Your task to perform on an android device: star an email in the gmail app Image 0: 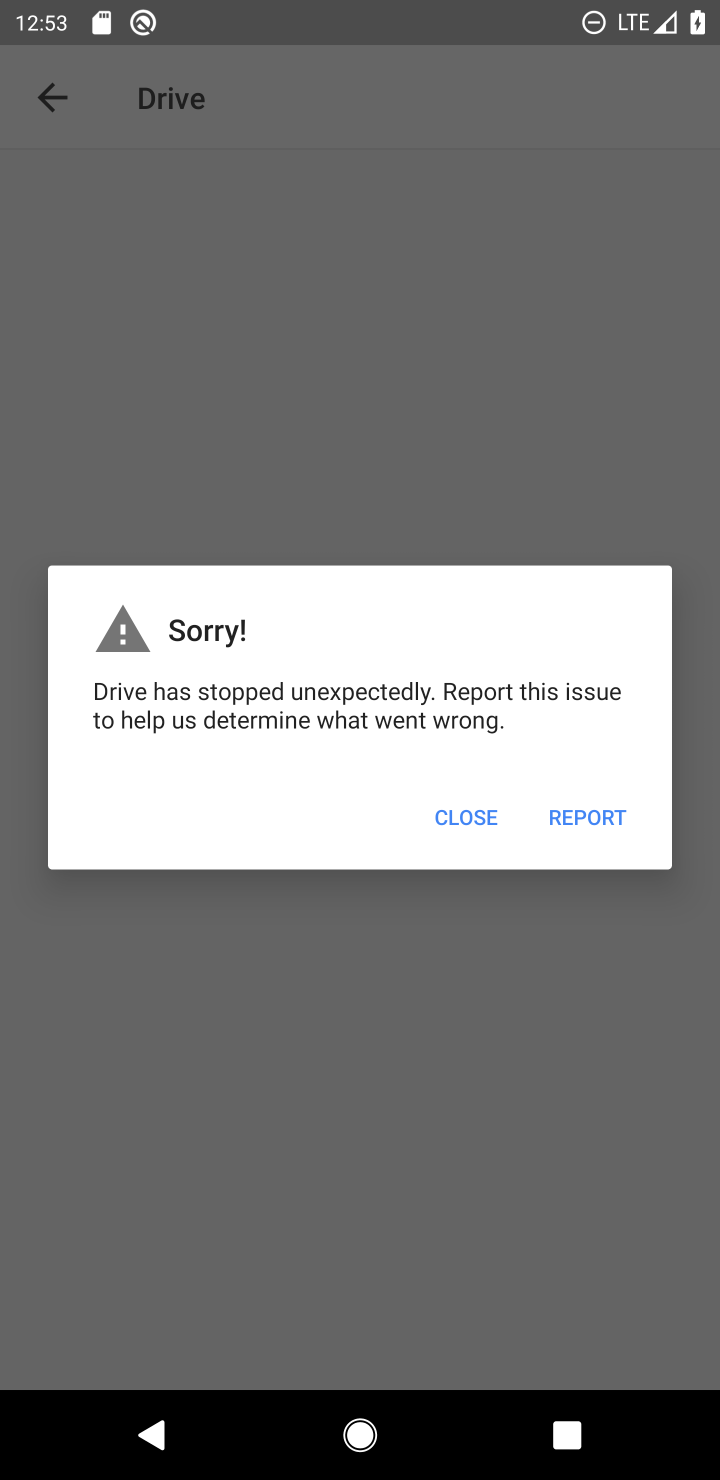
Step 0: press home button
Your task to perform on an android device: star an email in the gmail app Image 1: 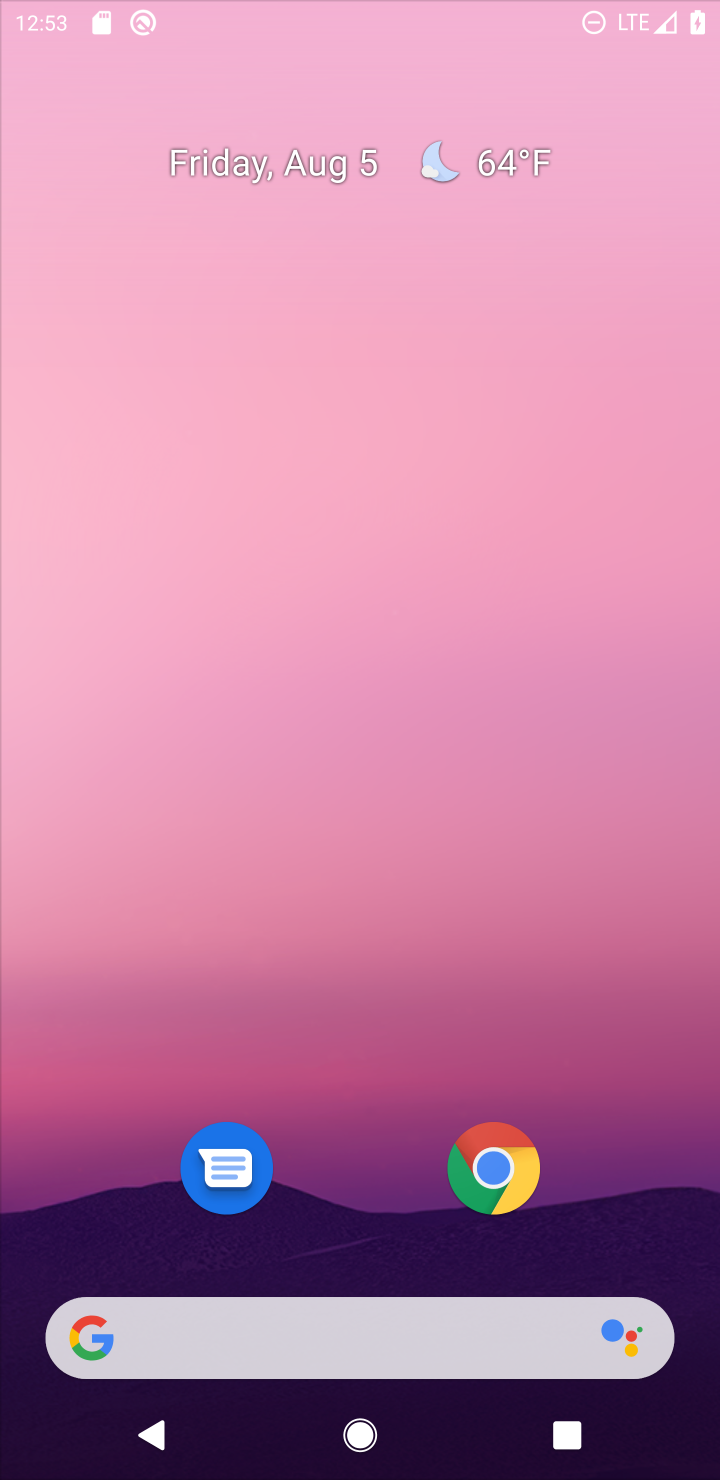
Step 1: drag from (593, 800) to (348, 54)
Your task to perform on an android device: star an email in the gmail app Image 2: 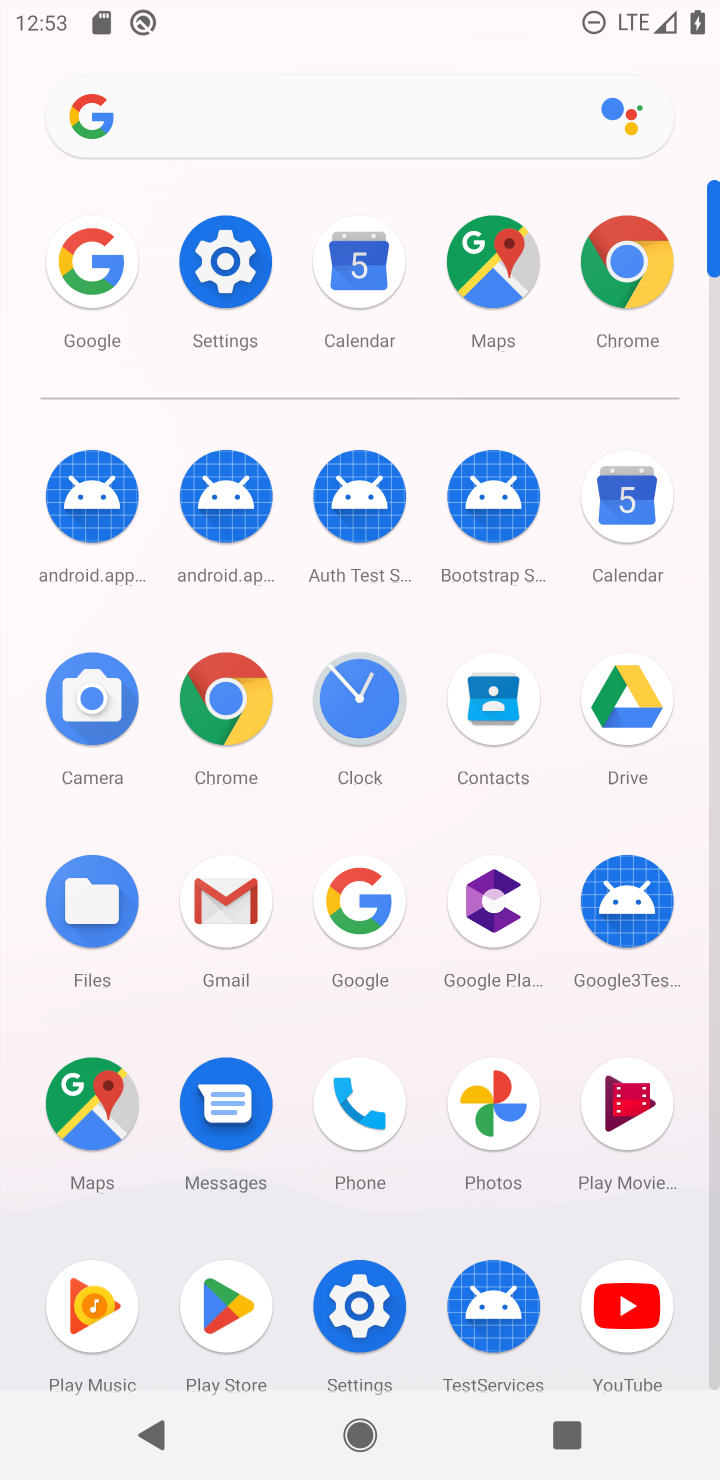
Step 2: click (241, 910)
Your task to perform on an android device: star an email in the gmail app Image 3: 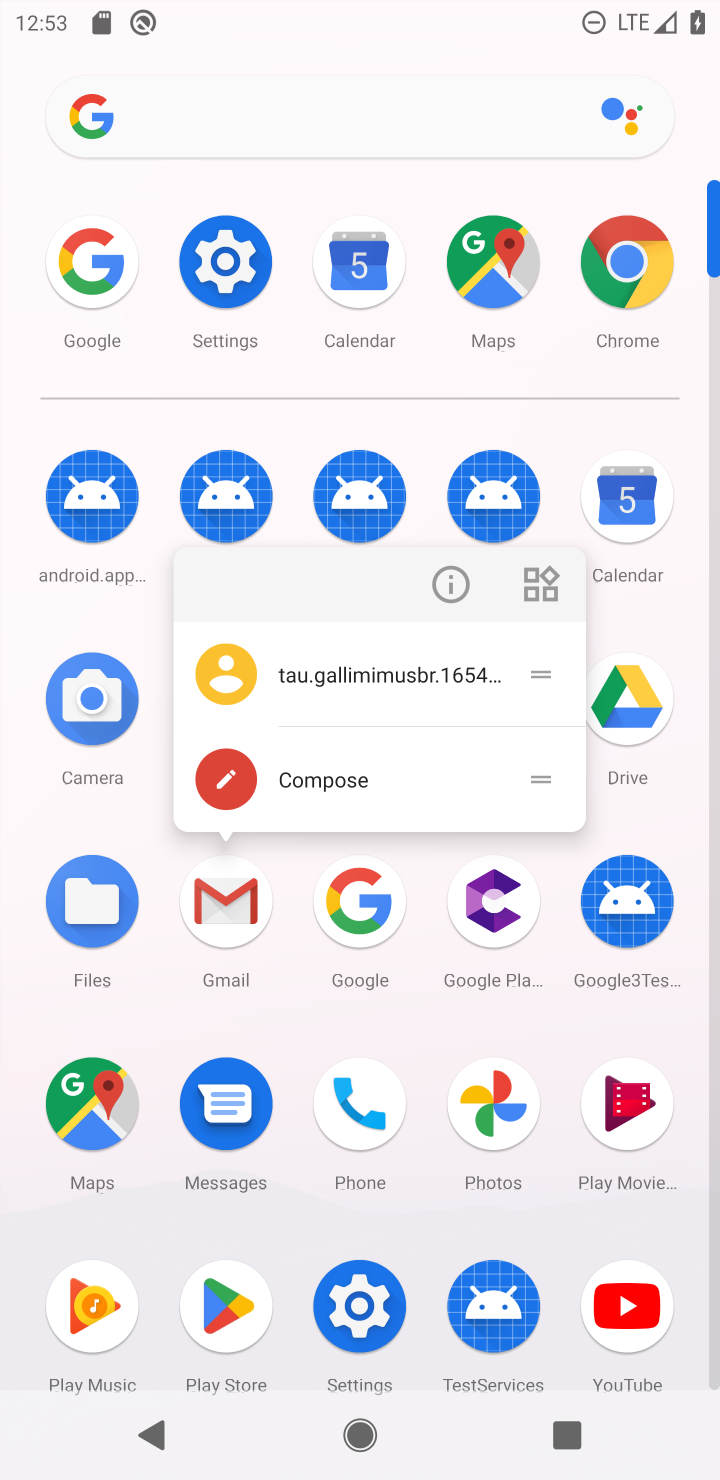
Step 3: click (241, 910)
Your task to perform on an android device: star an email in the gmail app Image 4: 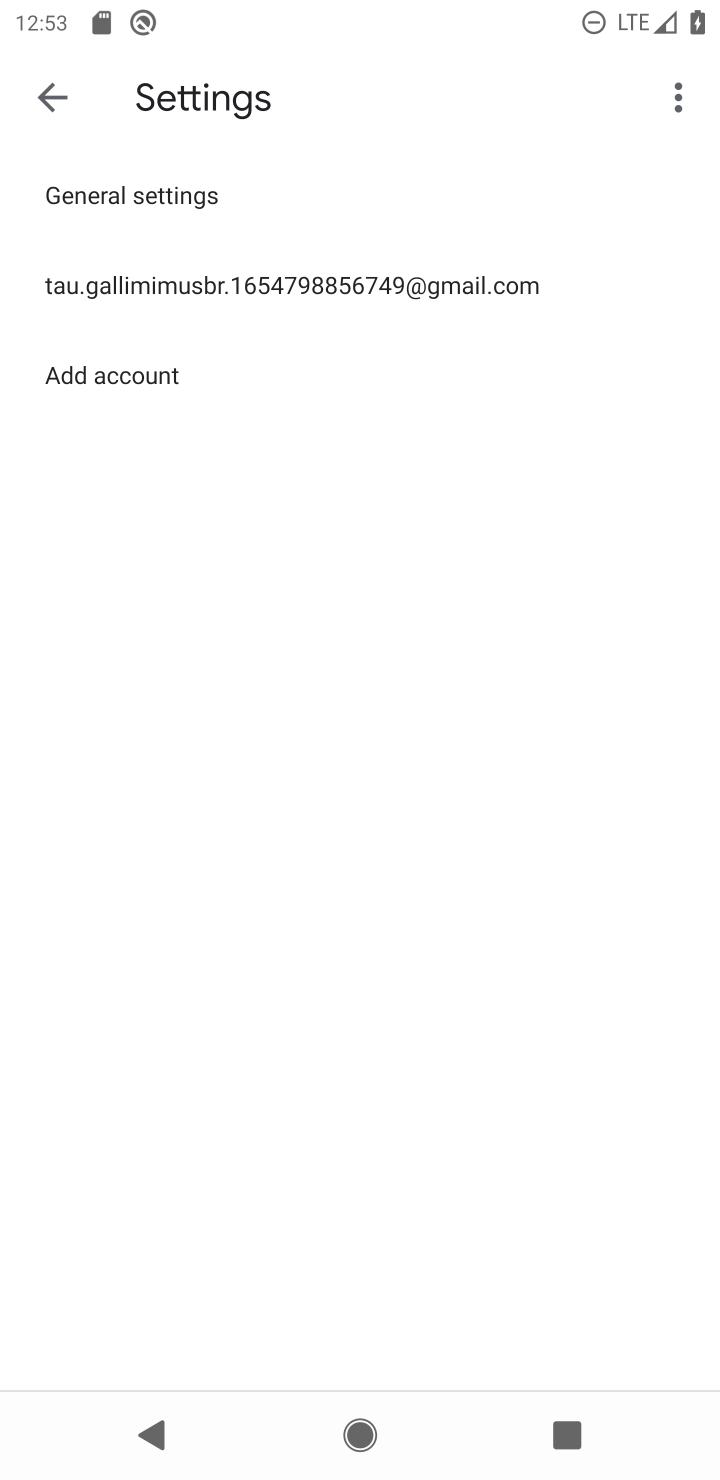
Step 4: press back button
Your task to perform on an android device: star an email in the gmail app Image 5: 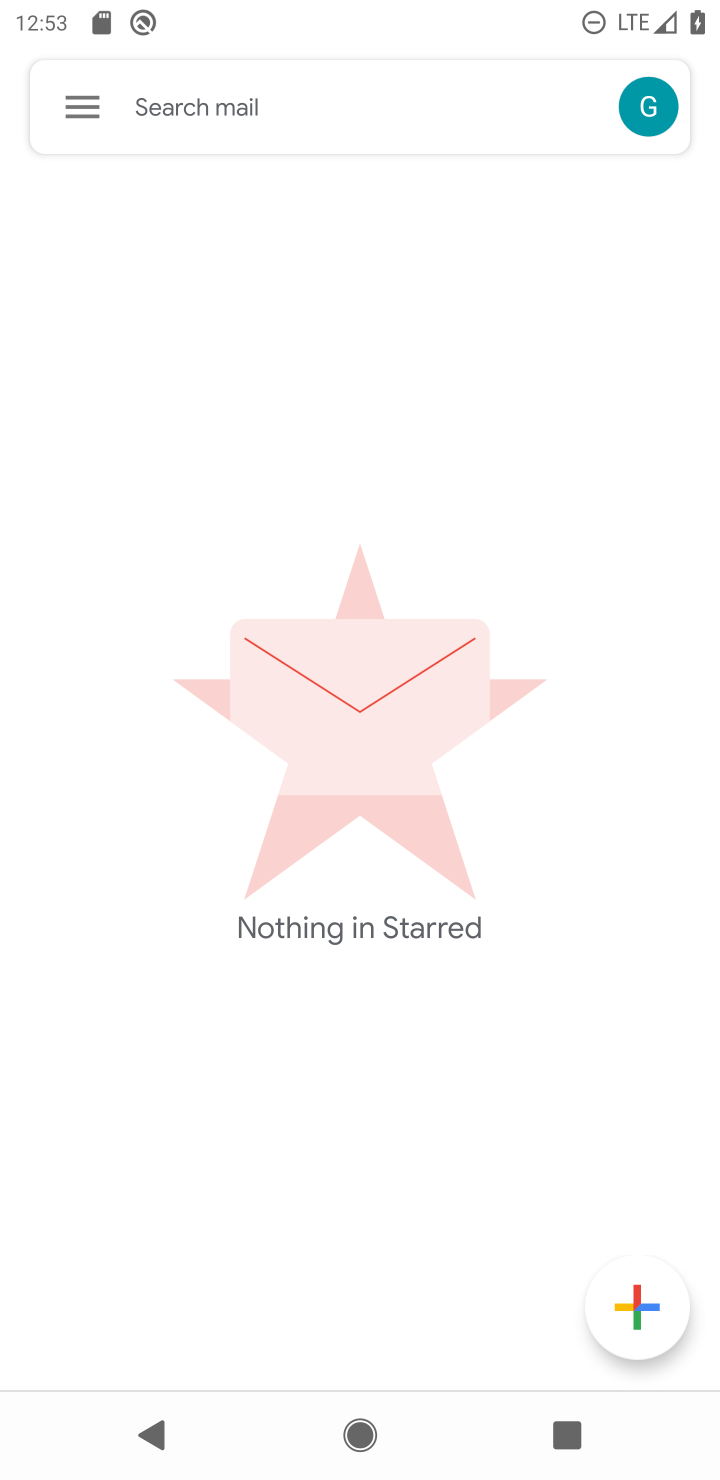
Step 5: click (54, 113)
Your task to perform on an android device: star an email in the gmail app Image 6: 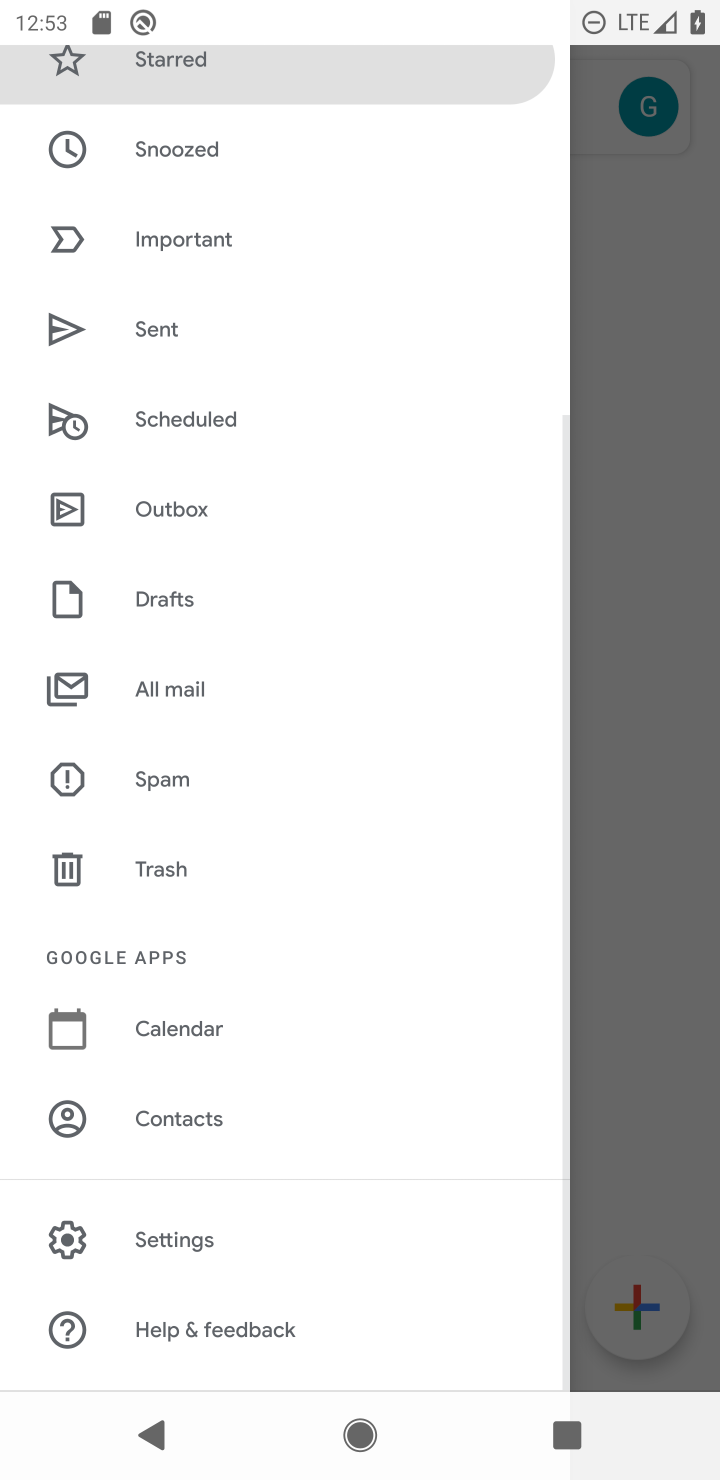
Step 6: drag from (203, 174) to (214, 1445)
Your task to perform on an android device: star an email in the gmail app Image 7: 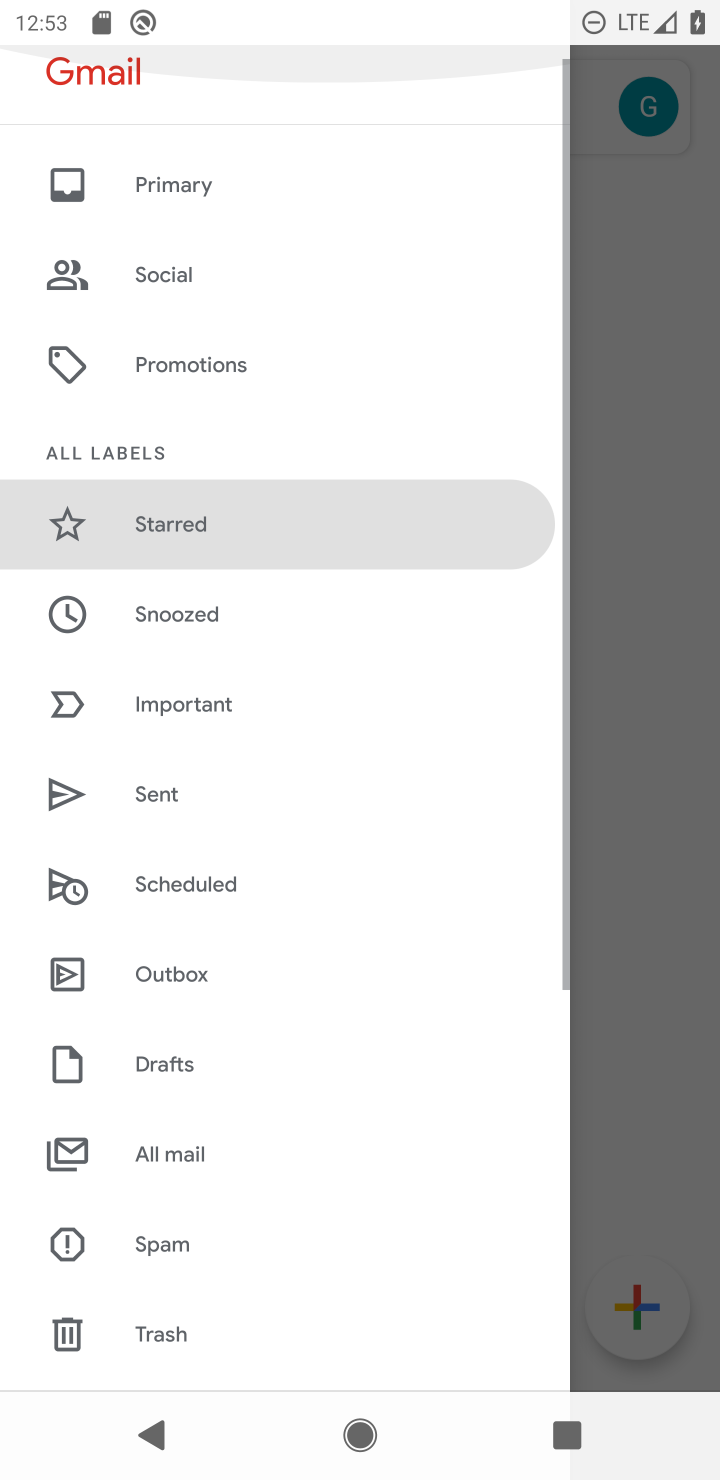
Step 7: click (182, 218)
Your task to perform on an android device: star an email in the gmail app Image 8: 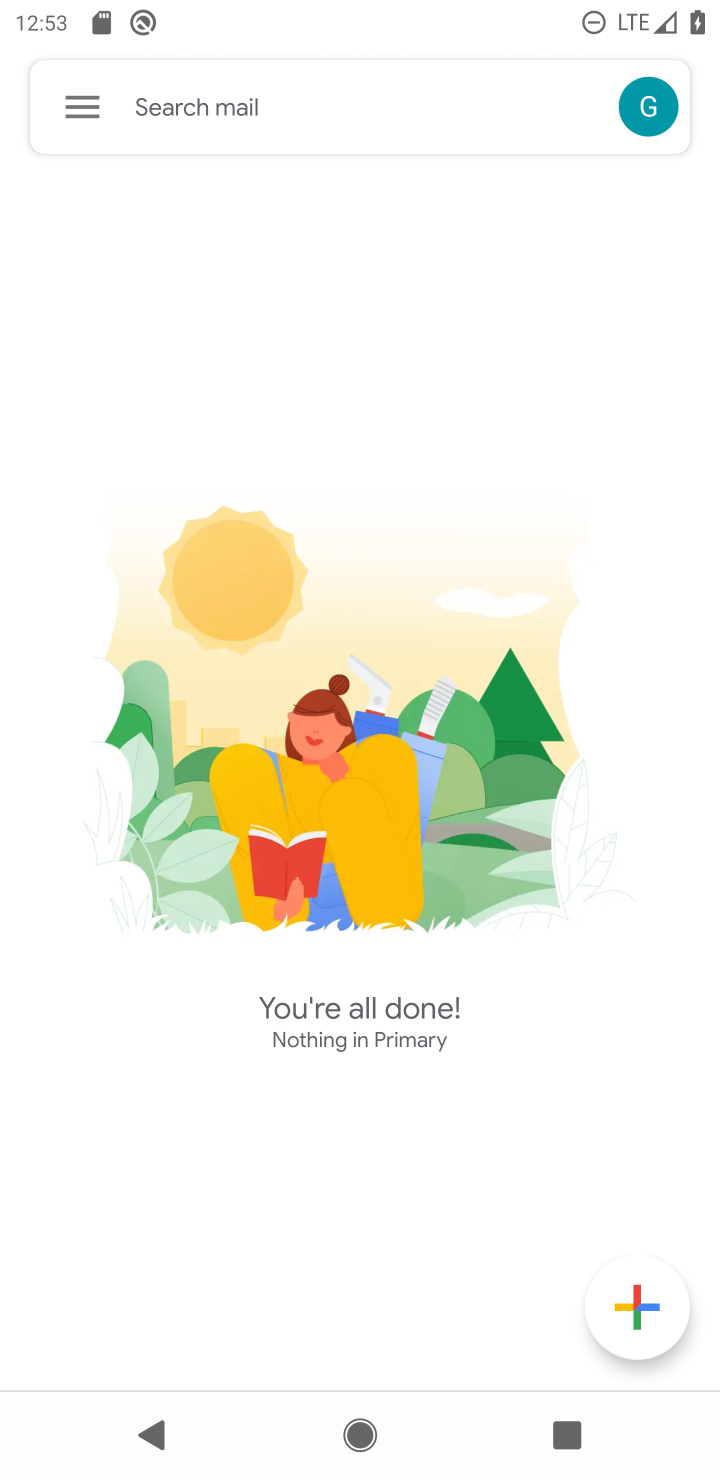
Step 8: task complete